Your task to perform on an android device: find photos in the google photos app Image 0: 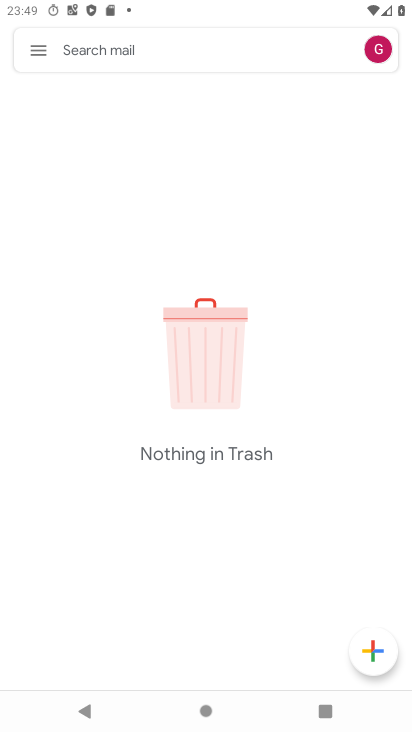
Step 0: press home button
Your task to perform on an android device: find photos in the google photos app Image 1: 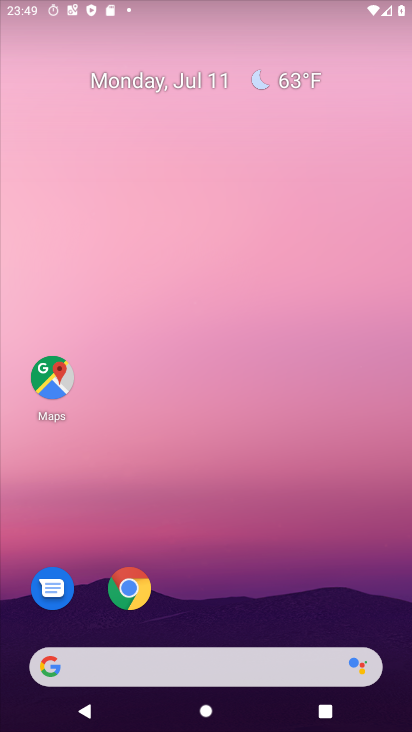
Step 1: drag from (248, 682) to (230, 87)
Your task to perform on an android device: find photos in the google photos app Image 2: 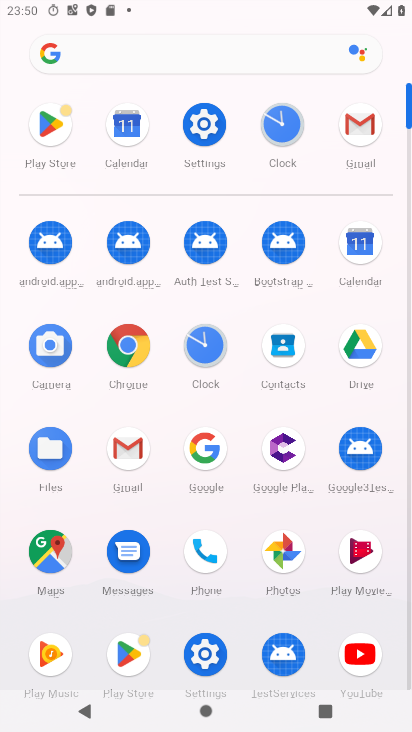
Step 2: click (289, 552)
Your task to perform on an android device: find photos in the google photos app Image 3: 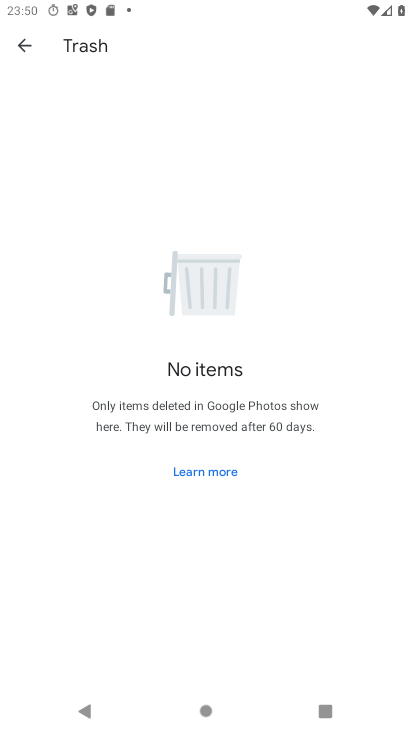
Step 3: task complete